Your task to perform on an android device: Do I have any events tomorrow? Image 0: 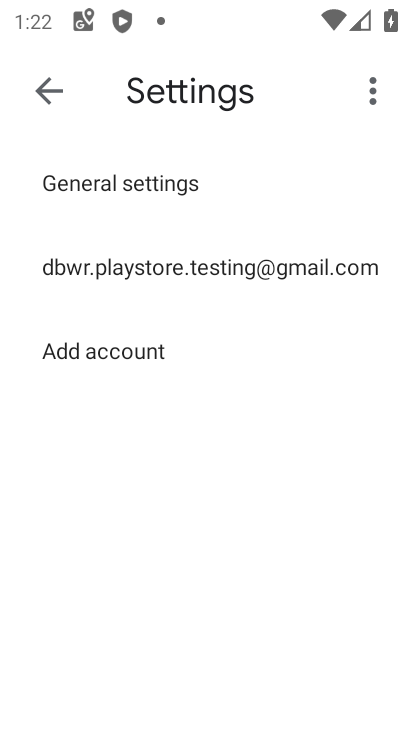
Step 0: press home button
Your task to perform on an android device: Do I have any events tomorrow? Image 1: 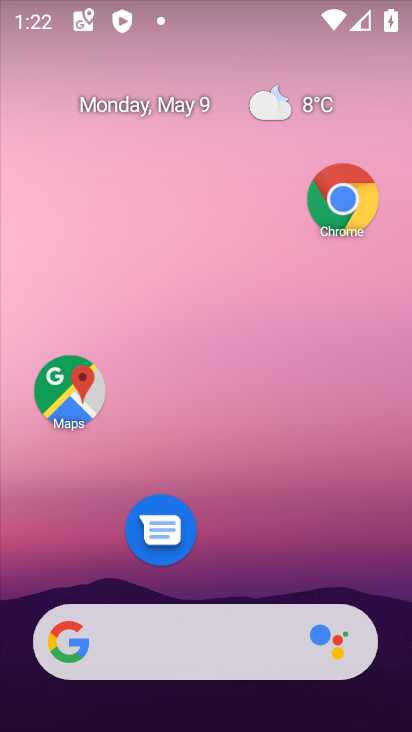
Step 1: drag from (274, 533) to (239, 96)
Your task to perform on an android device: Do I have any events tomorrow? Image 2: 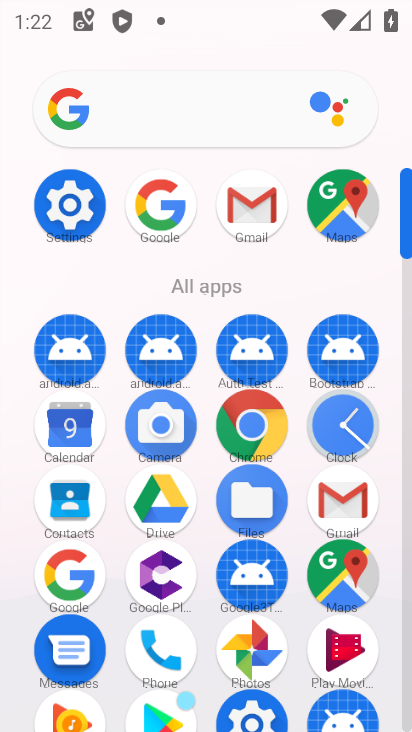
Step 2: click (66, 435)
Your task to perform on an android device: Do I have any events tomorrow? Image 3: 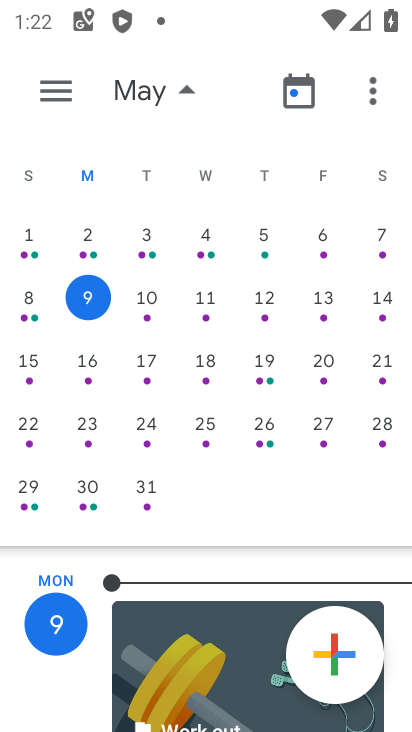
Step 3: click (147, 306)
Your task to perform on an android device: Do I have any events tomorrow? Image 4: 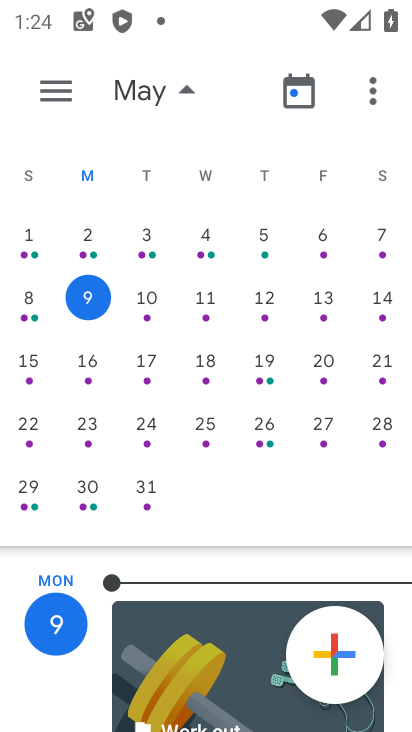
Step 4: task complete